Your task to perform on an android device: toggle javascript in the chrome app Image 0: 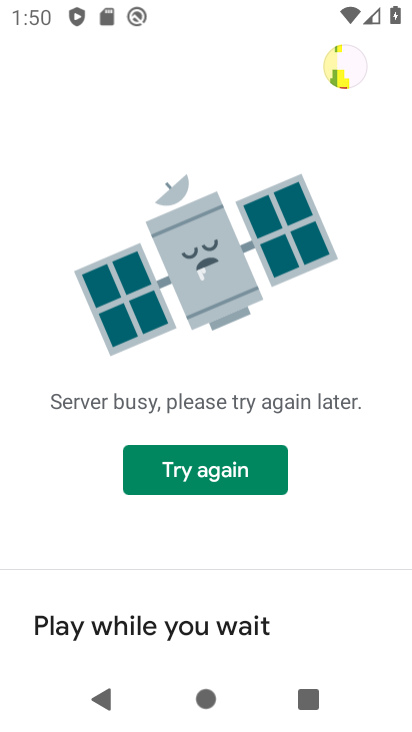
Step 0: press home button
Your task to perform on an android device: toggle javascript in the chrome app Image 1: 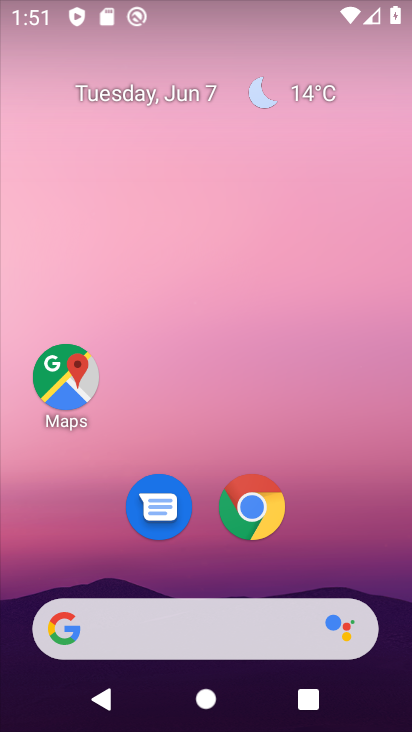
Step 1: click (255, 513)
Your task to perform on an android device: toggle javascript in the chrome app Image 2: 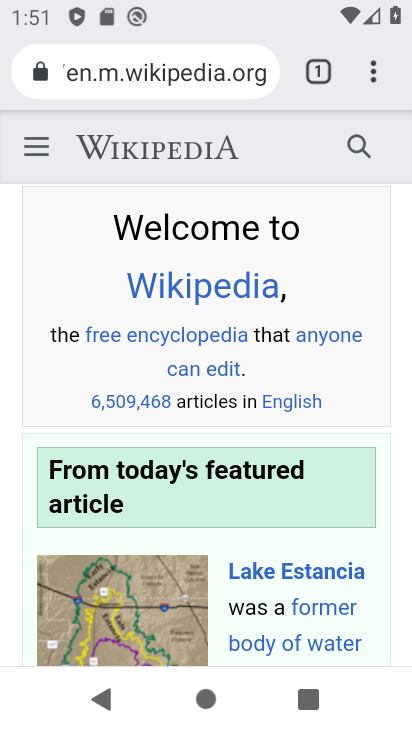
Step 2: click (372, 71)
Your task to perform on an android device: toggle javascript in the chrome app Image 3: 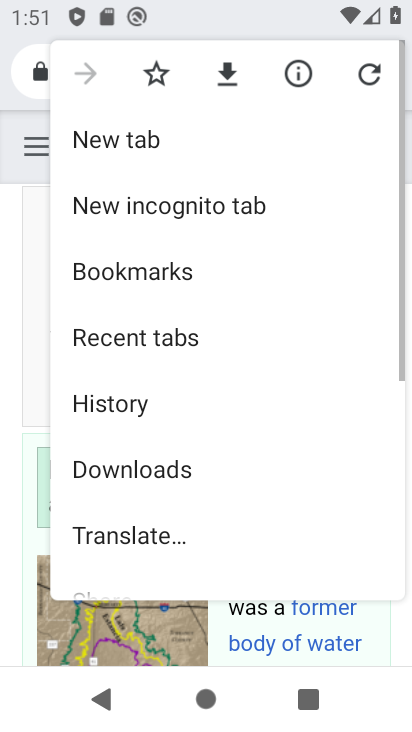
Step 3: drag from (206, 520) to (251, 69)
Your task to perform on an android device: toggle javascript in the chrome app Image 4: 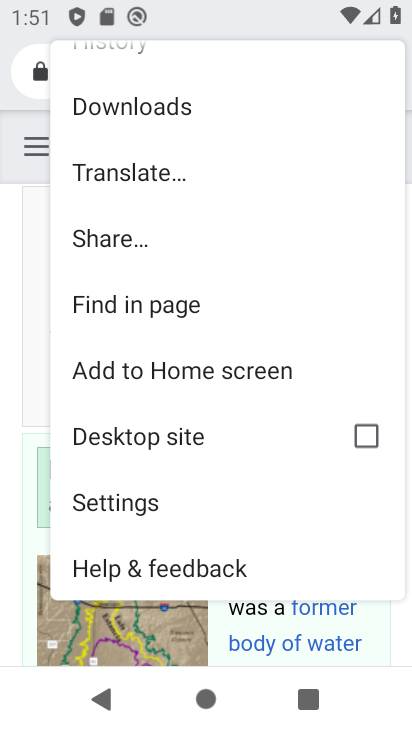
Step 4: click (118, 504)
Your task to perform on an android device: toggle javascript in the chrome app Image 5: 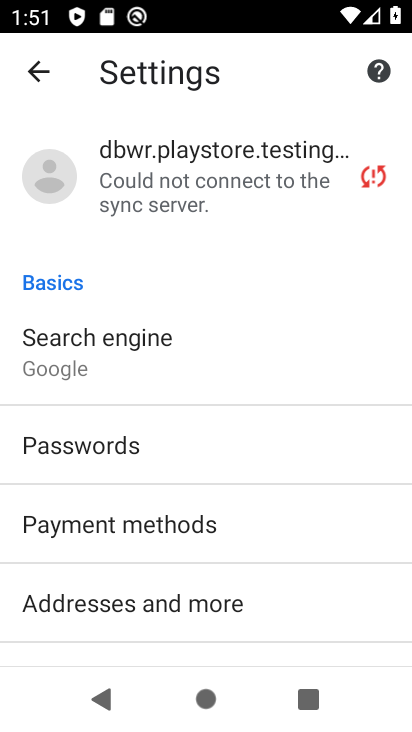
Step 5: drag from (189, 566) to (160, 63)
Your task to perform on an android device: toggle javascript in the chrome app Image 6: 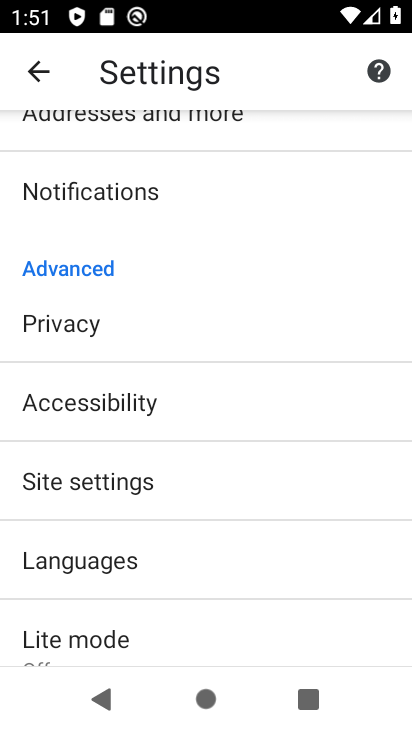
Step 6: click (139, 484)
Your task to perform on an android device: toggle javascript in the chrome app Image 7: 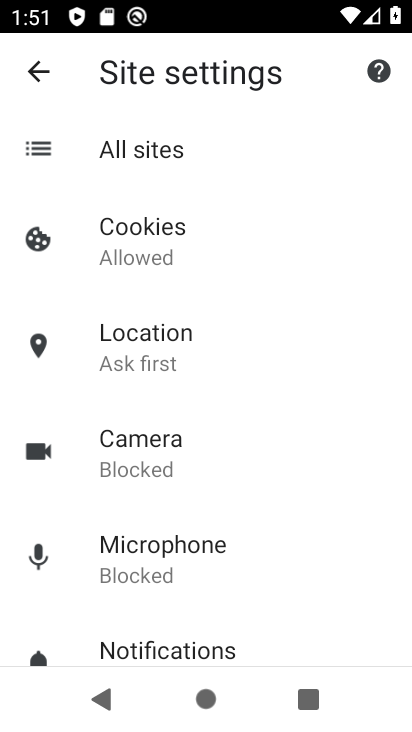
Step 7: drag from (276, 558) to (294, 150)
Your task to perform on an android device: toggle javascript in the chrome app Image 8: 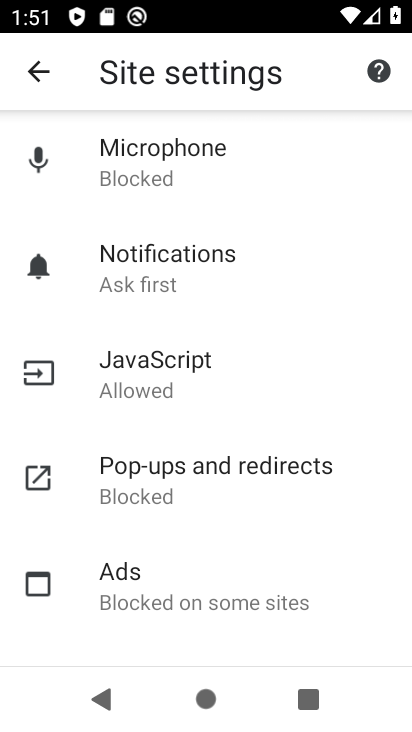
Step 8: click (176, 401)
Your task to perform on an android device: toggle javascript in the chrome app Image 9: 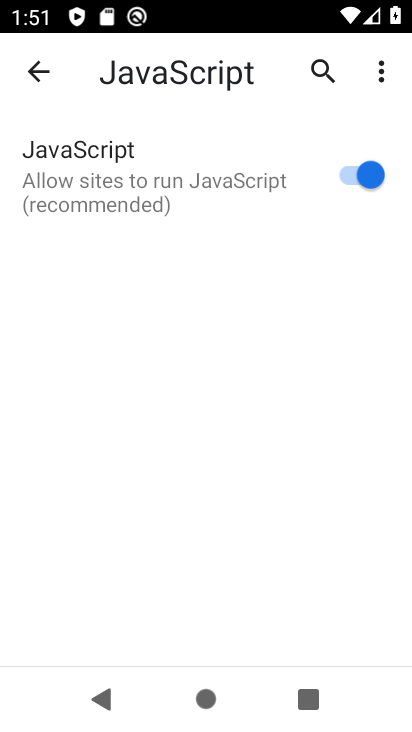
Step 9: click (350, 167)
Your task to perform on an android device: toggle javascript in the chrome app Image 10: 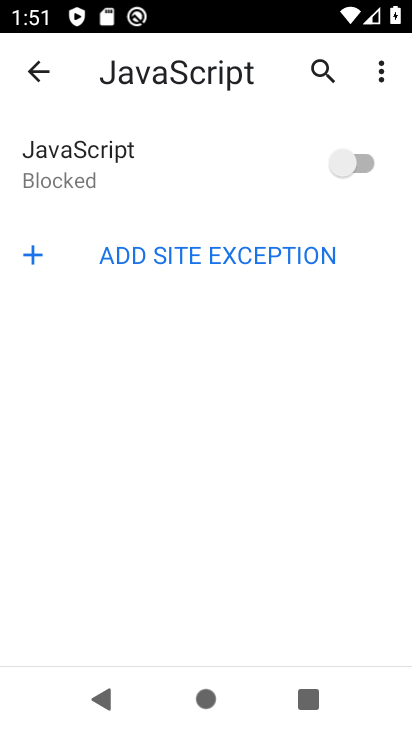
Step 10: task complete